Your task to perform on an android device: Open Google Image 0: 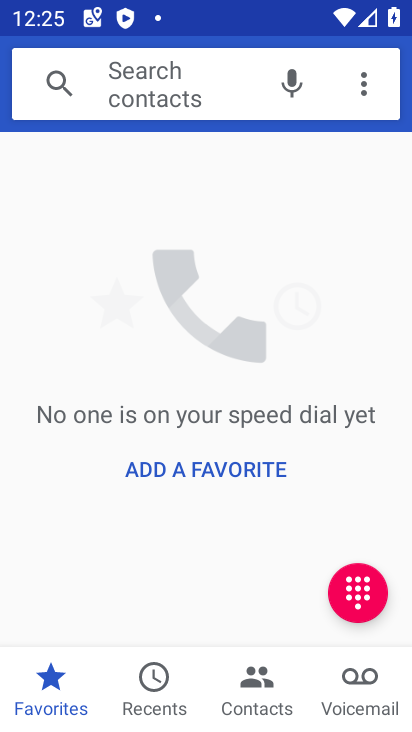
Step 0: press home button
Your task to perform on an android device: Open Google Image 1: 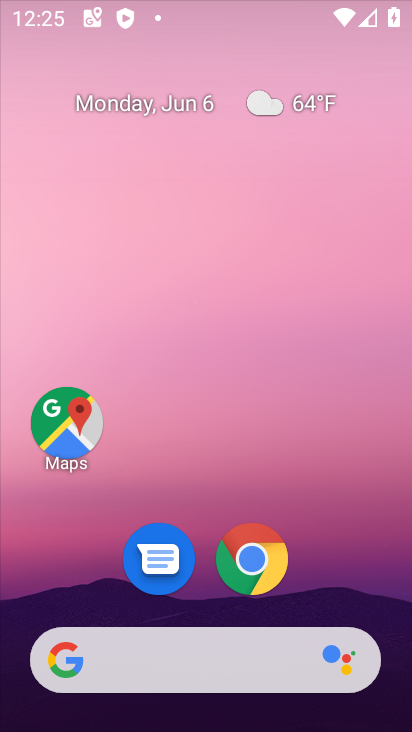
Step 1: drag from (204, 699) to (289, 231)
Your task to perform on an android device: Open Google Image 2: 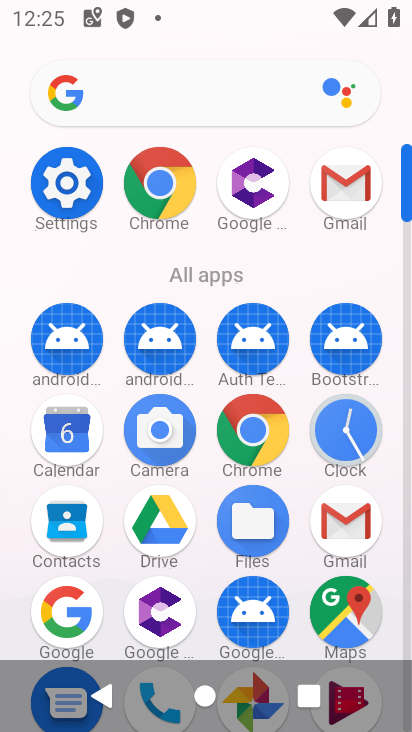
Step 2: click (77, 94)
Your task to perform on an android device: Open Google Image 3: 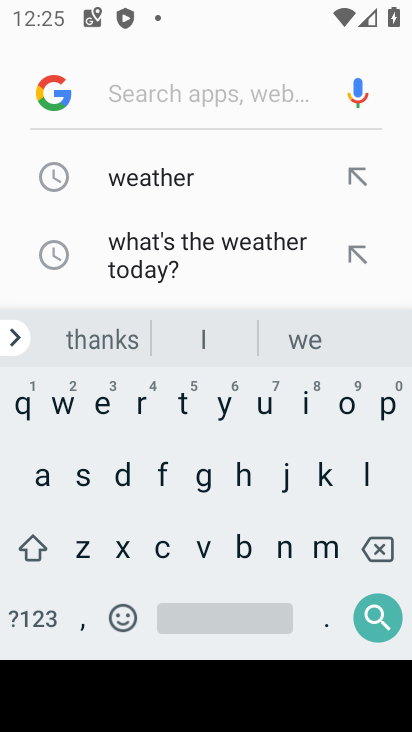
Step 3: click (50, 110)
Your task to perform on an android device: Open Google Image 4: 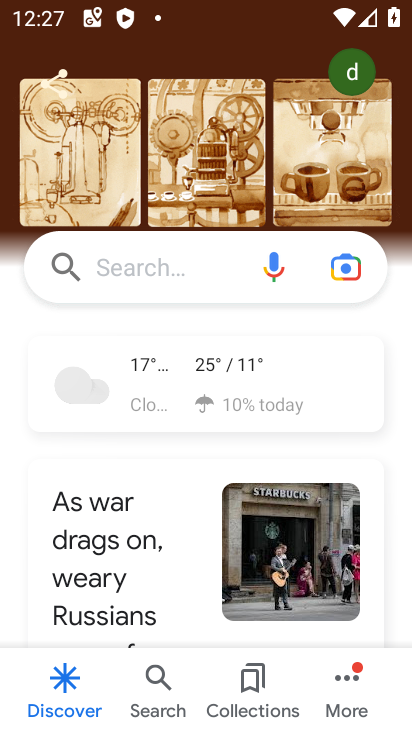
Step 4: task complete